Your task to perform on an android device: Turn off the flashlight Image 0: 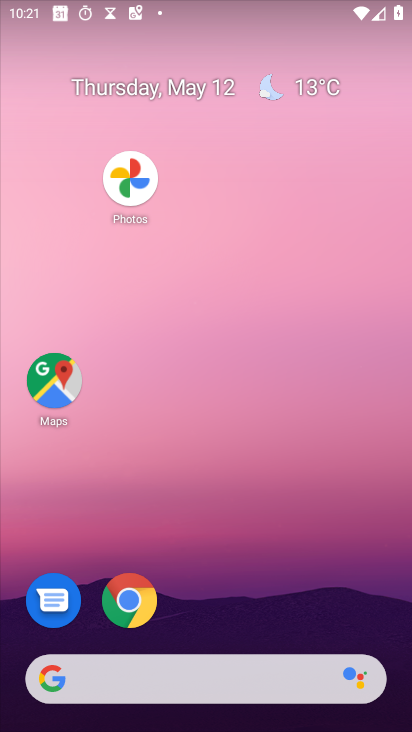
Step 0: drag from (317, 617) to (172, 91)
Your task to perform on an android device: Turn off the flashlight Image 1: 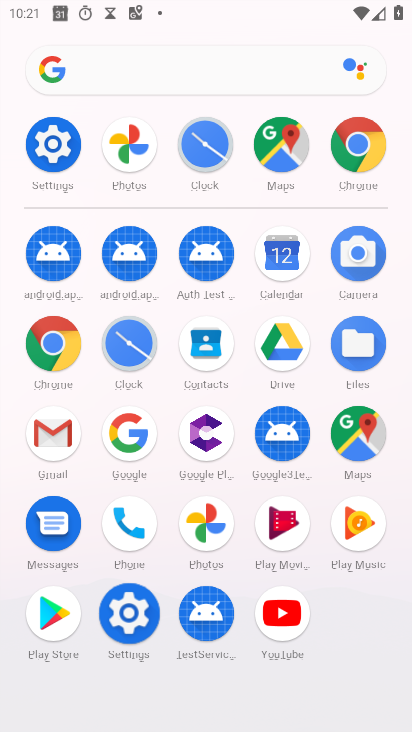
Step 1: task complete